Your task to perform on an android device: open the mobile data screen to see how much data has been used Image 0: 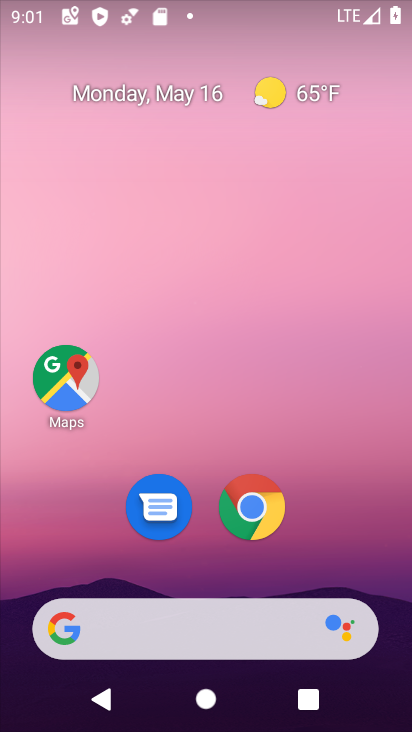
Step 0: drag from (209, 597) to (206, 10)
Your task to perform on an android device: open the mobile data screen to see how much data has been used Image 1: 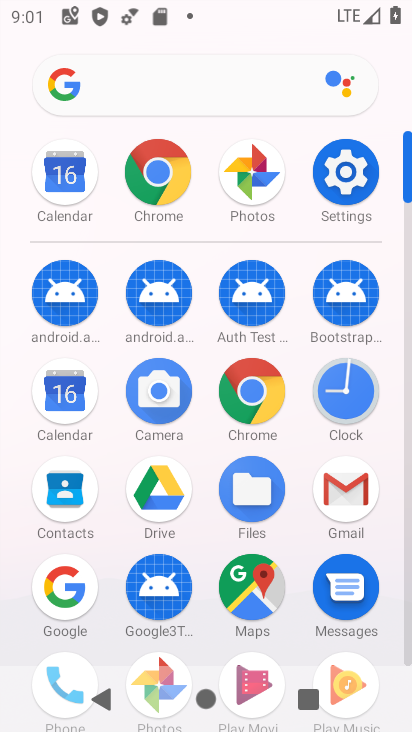
Step 1: click (351, 197)
Your task to perform on an android device: open the mobile data screen to see how much data has been used Image 2: 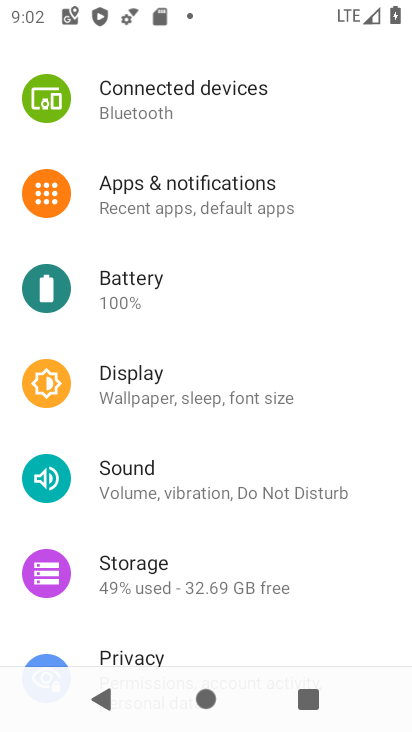
Step 2: drag from (181, 192) to (220, 537)
Your task to perform on an android device: open the mobile data screen to see how much data has been used Image 3: 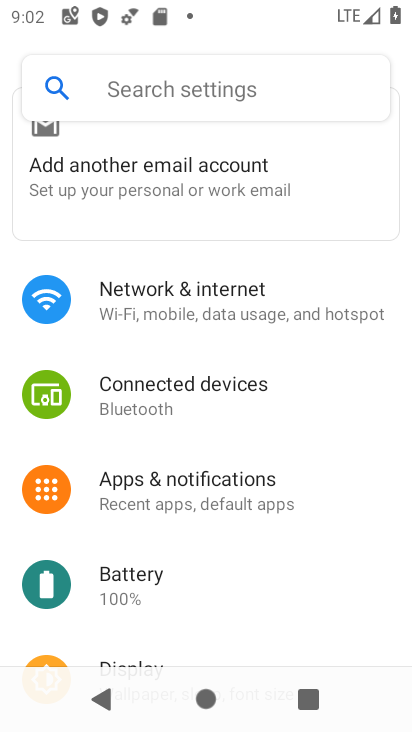
Step 3: click (224, 283)
Your task to perform on an android device: open the mobile data screen to see how much data has been used Image 4: 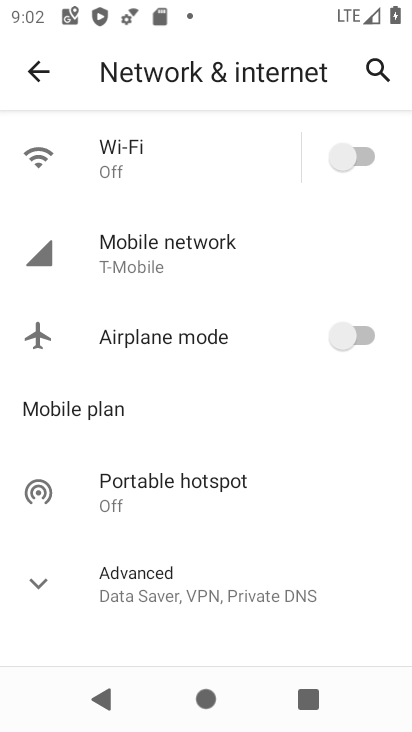
Step 4: click (219, 243)
Your task to perform on an android device: open the mobile data screen to see how much data has been used Image 5: 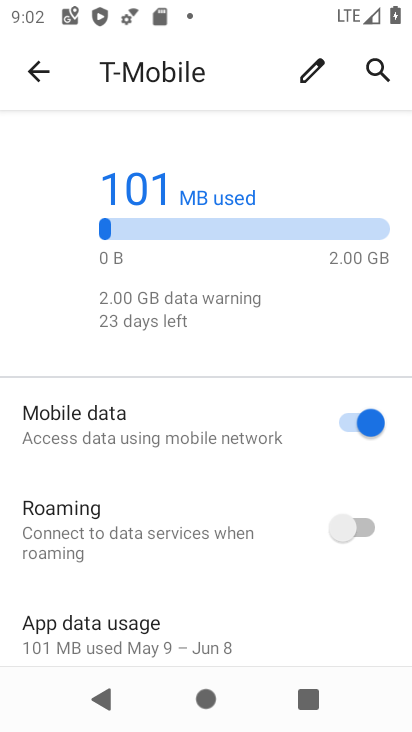
Step 5: task complete